Your task to perform on an android device: Find coffee shops on Maps Image 0: 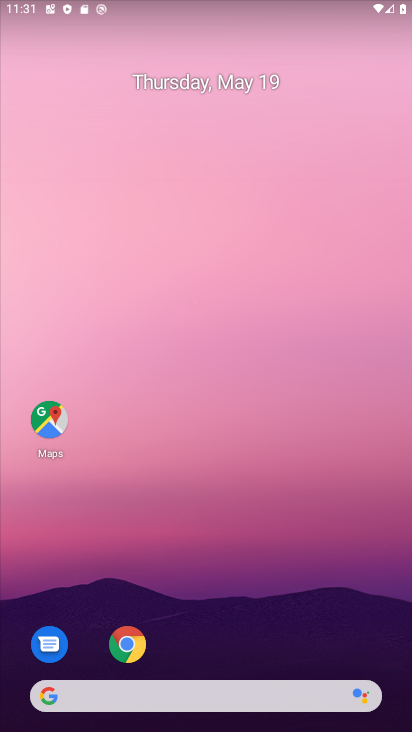
Step 0: click (51, 418)
Your task to perform on an android device: Find coffee shops on Maps Image 1: 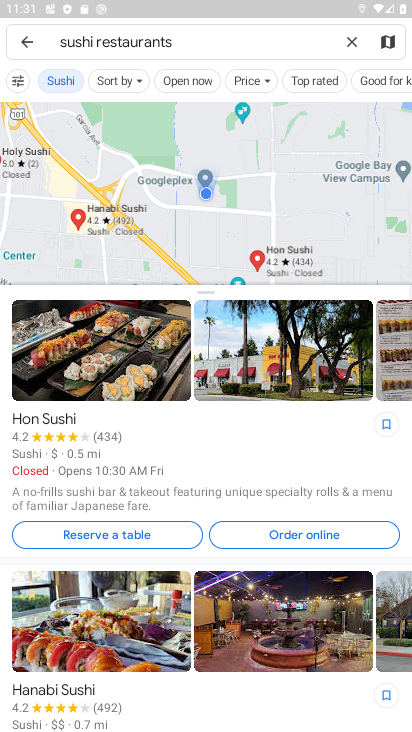
Step 1: click (345, 39)
Your task to perform on an android device: Find coffee shops on Maps Image 2: 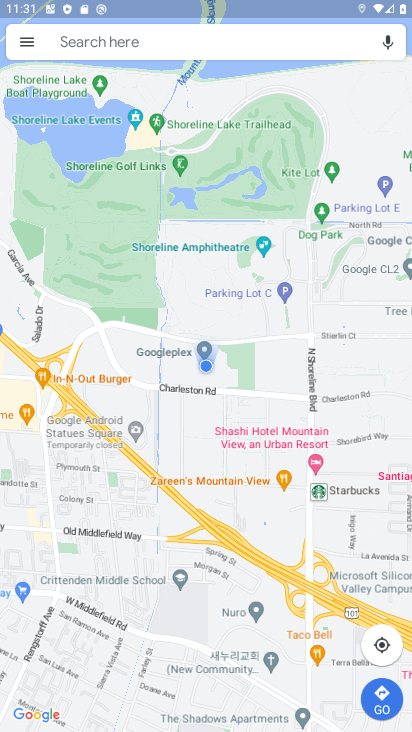
Step 2: click (341, 39)
Your task to perform on an android device: Find coffee shops on Maps Image 3: 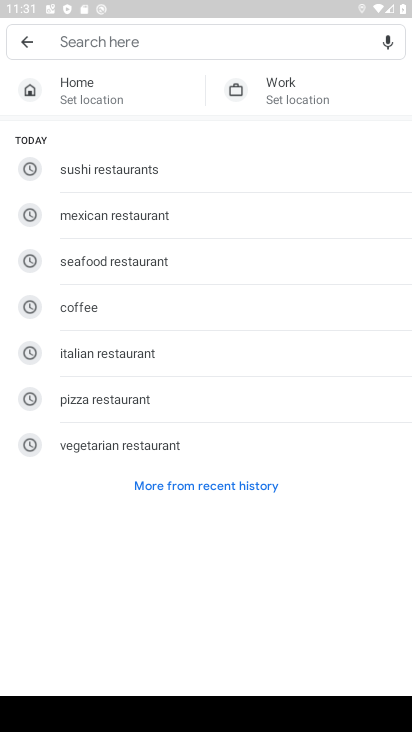
Step 3: click (102, 306)
Your task to perform on an android device: Find coffee shops on Maps Image 4: 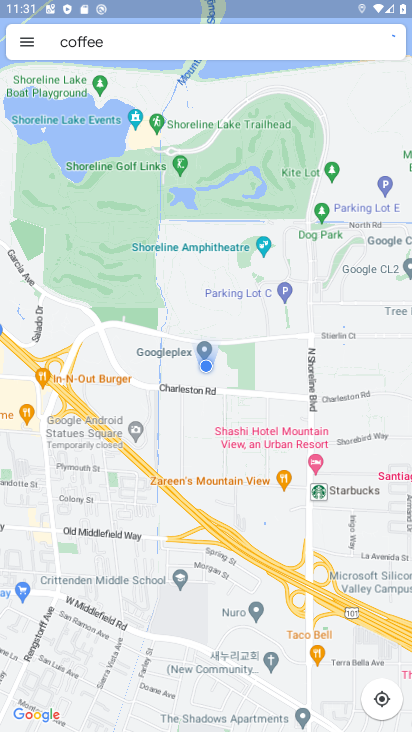
Step 4: task complete